Your task to perform on an android device: clear history in the chrome app Image 0: 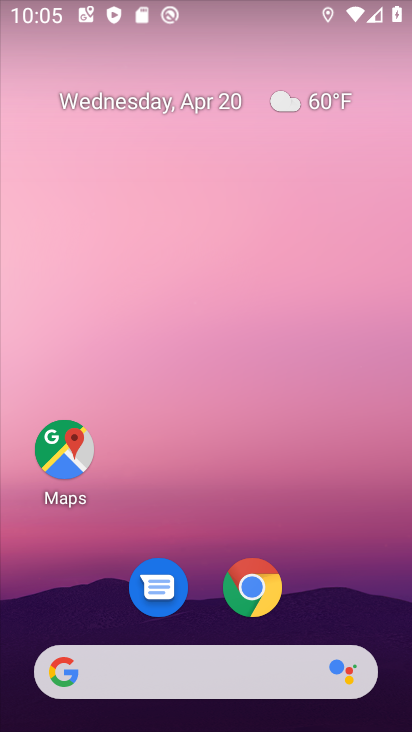
Step 0: click (254, 588)
Your task to perform on an android device: clear history in the chrome app Image 1: 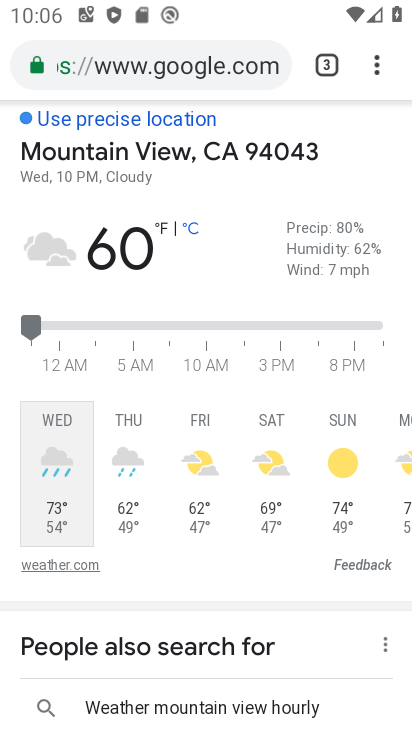
Step 1: click (375, 56)
Your task to perform on an android device: clear history in the chrome app Image 2: 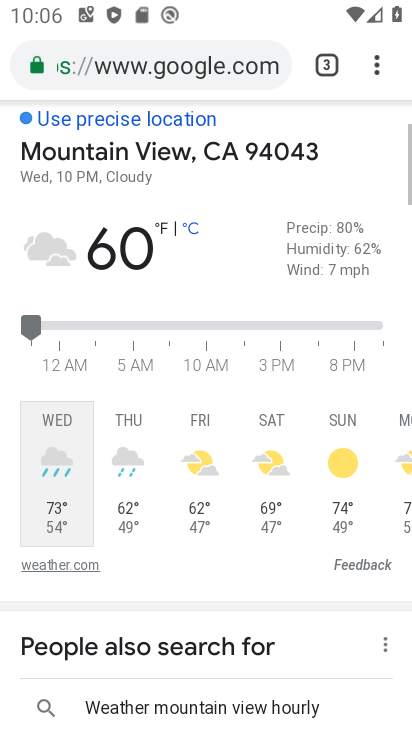
Step 2: drag from (374, 68) to (156, 368)
Your task to perform on an android device: clear history in the chrome app Image 3: 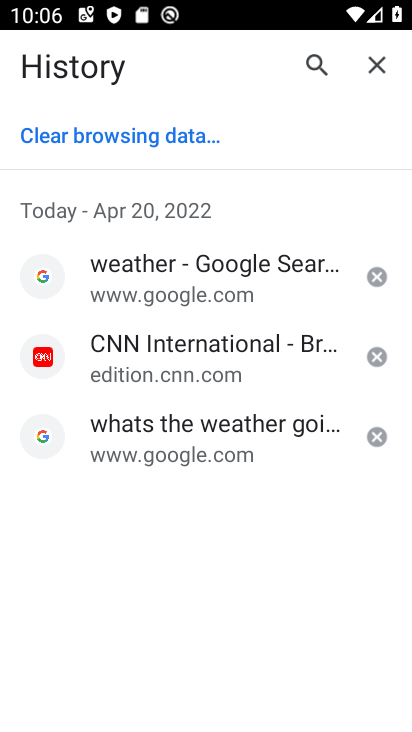
Step 3: click (103, 139)
Your task to perform on an android device: clear history in the chrome app Image 4: 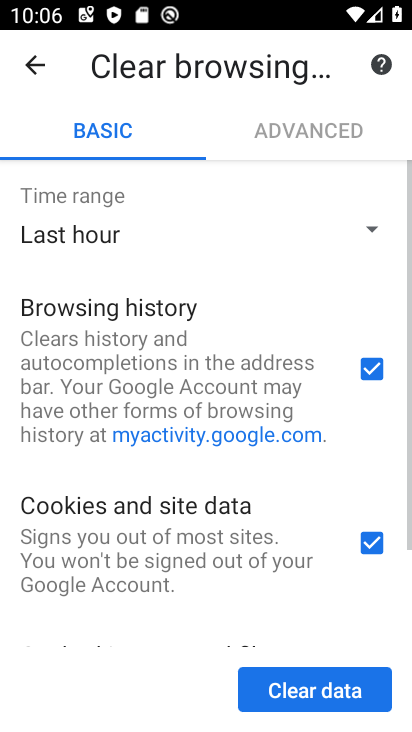
Step 4: drag from (161, 613) to (170, 344)
Your task to perform on an android device: clear history in the chrome app Image 5: 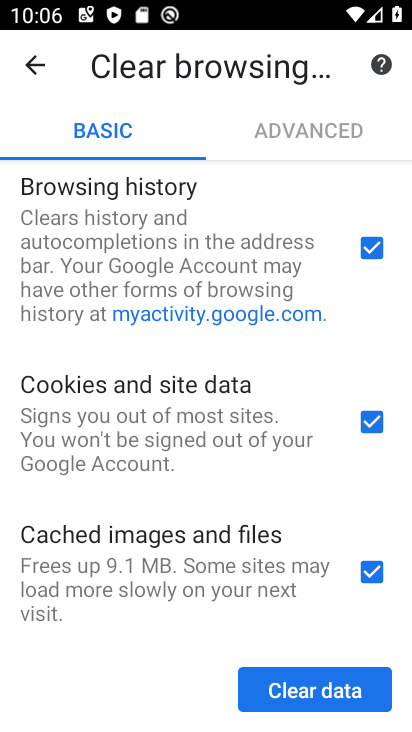
Step 5: click (318, 695)
Your task to perform on an android device: clear history in the chrome app Image 6: 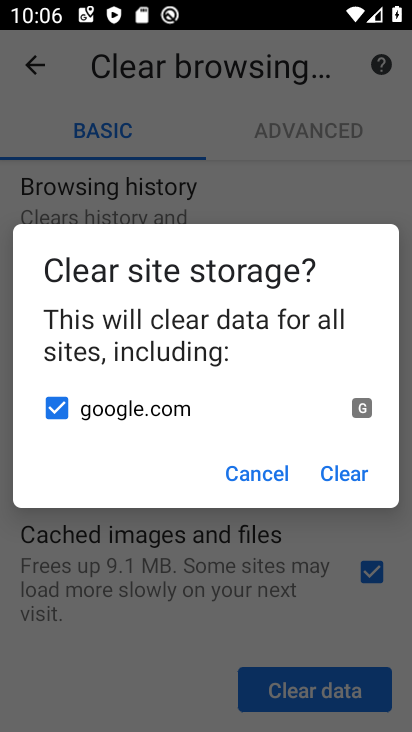
Step 6: click (343, 470)
Your task to perform on an android device: clear history in the chrome app Image 7: 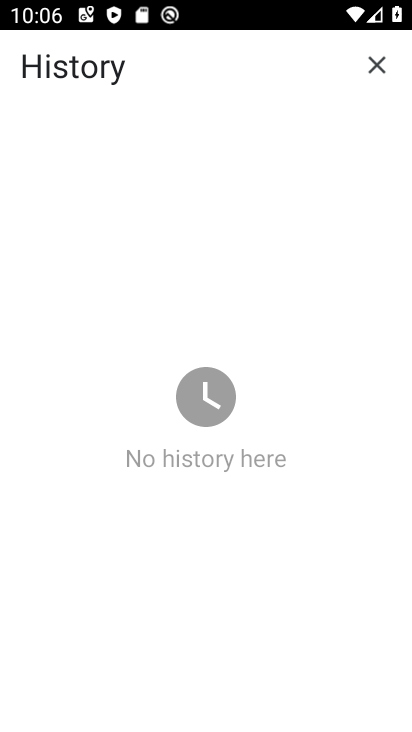
Step 7: task complete